Your task to perform on an android device: delete a single message in the gmail app Image 0: 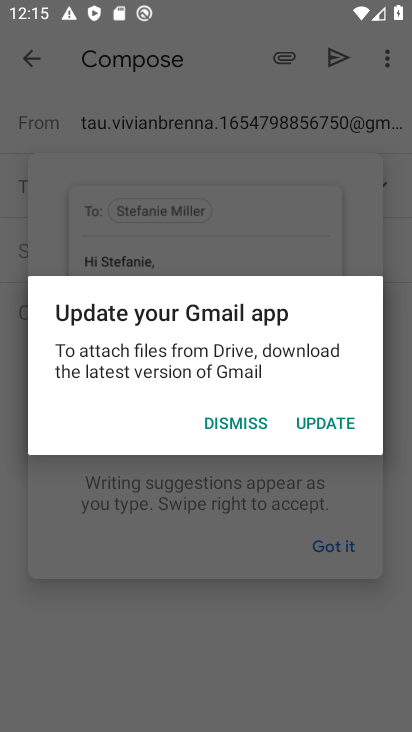
Step 0: press home button
Your task to perform on an android device: delete a single message in the gmail app Image 1: 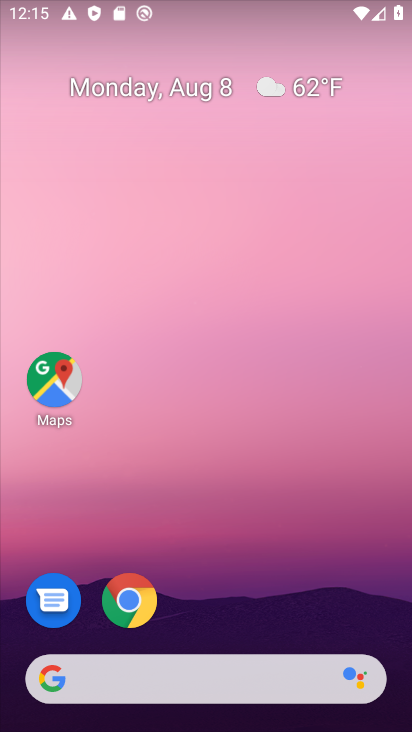
Step 1: drag from (212, 598) to (153, 226)
Your task to perform on an android device: delete a single message in the gmail app Image 2: 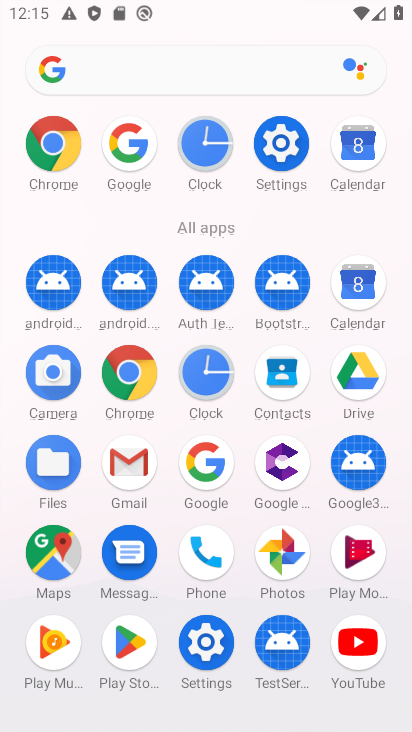
Step 2: click (140, 465)
Your task to perform on an android device: delete a single message in the gmail app Image 3: 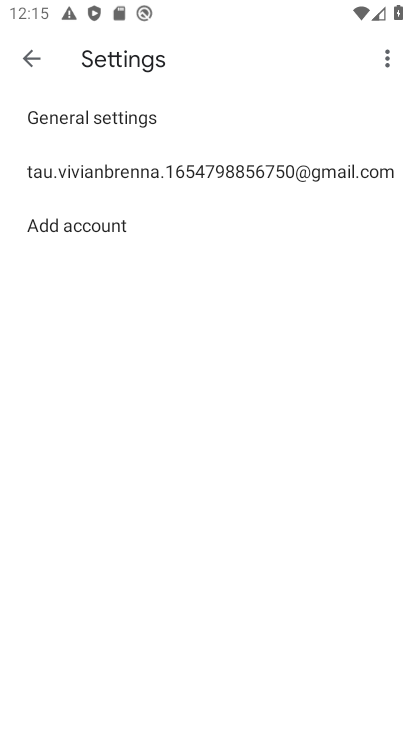
Step 3: click (21, 54)
Your task to perform on an android device: delete a single message in the gmail app Image 4: 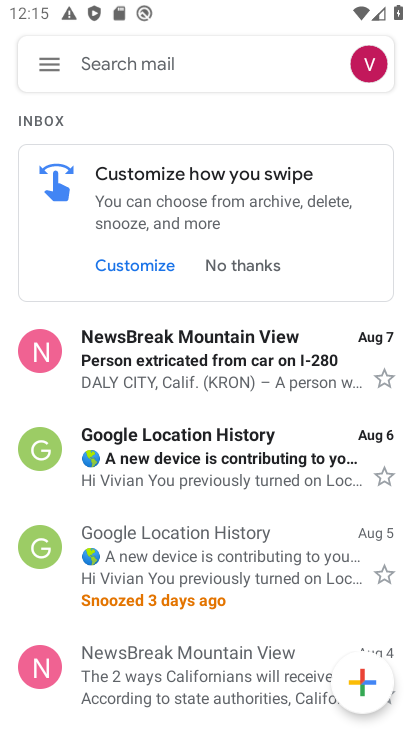
Step 4: click (248, 343)
Your task to perform on an android device: delete a single message in the gmail app Image 5: 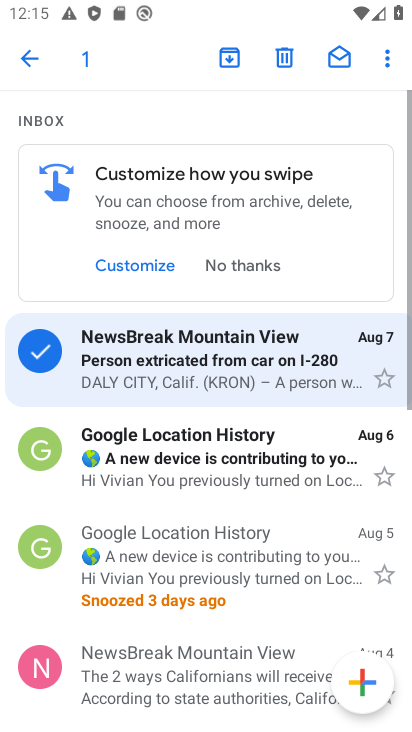
Step 5: click (283, 56)
Your task to perform on an android device: delete a single message in the gmail app Image 6: 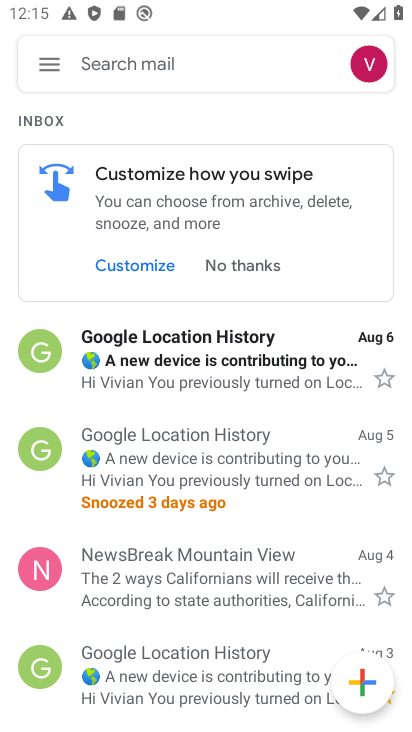
Step 6: task complete